Your task to perform on an android device: Play the last video I watched on Youtube Image 0: 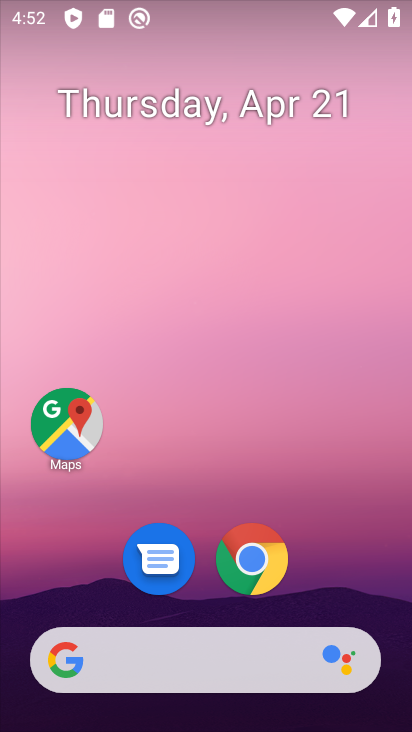
Step 0: drag from (368, 422) to (358, 0)
Your task to perform on an android device: Play the last video I watched on Youtube Image 1: 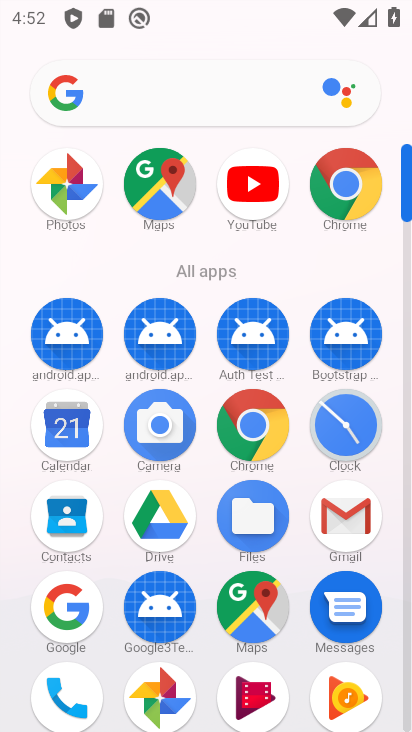
Step 1: click (262, 173)
Your task to perform on an android device: Play the last video I watched on Youtube Image 2: 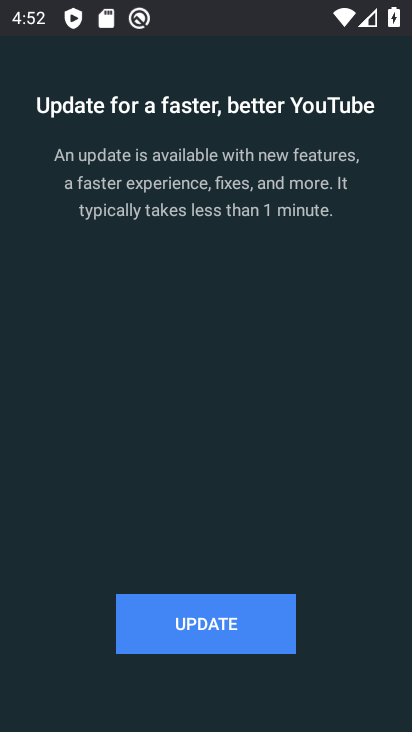
Step 2: click (217, 607)
Your task to perform on an android device: Play the last video I watched on Youtube Image 3: 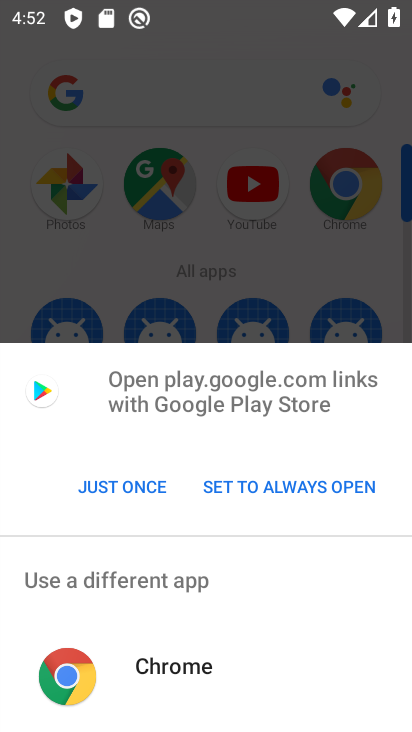
Step 3: click (105, 477)
Your task to perform on an android device: Play the last video I watched on Youtube Image 4: 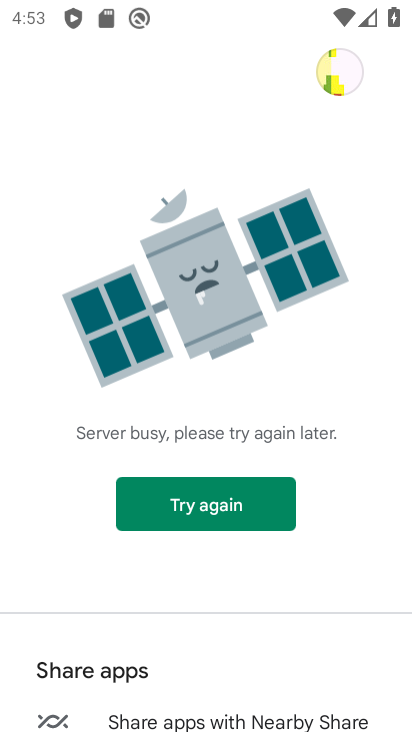
Step 4: click (213, 516)
Your task to perform on an android device: Play the last video I watched on Youtube Image 5: 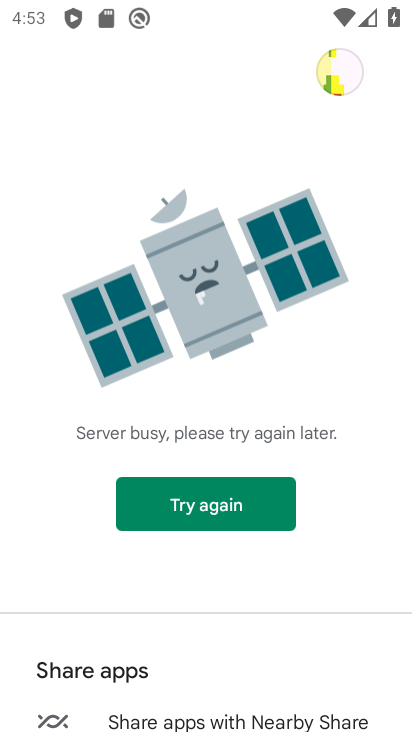
Step 5: task complete